Your task to perform on an android device: turn on sleep mode Image 0: 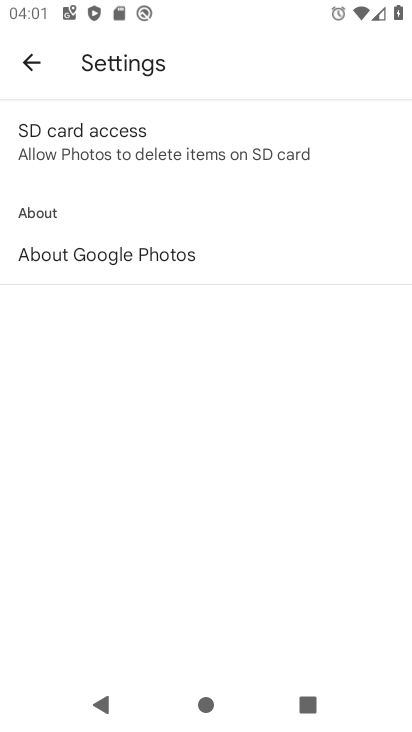
Step 0: press home button
Your task to perform on an android device: turn on sleep mode Image 1: 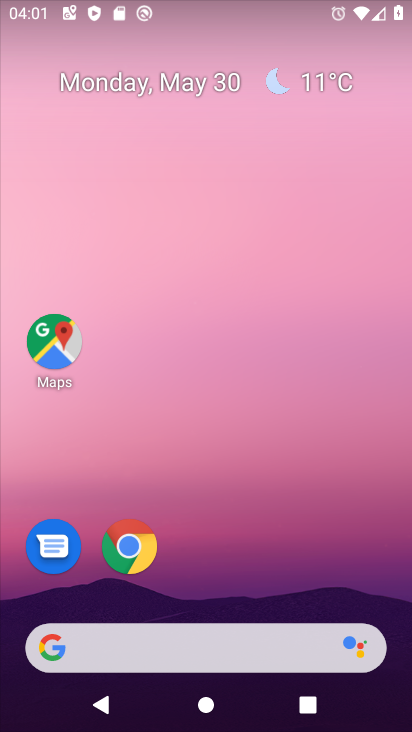
Step 1: drag from (228, 602) to (237, 147)
Your task to perform on an android device: turn on sleep mode Image 2: 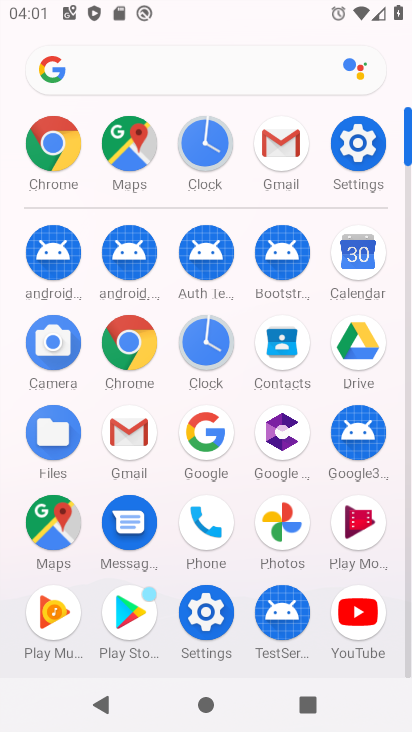
Step 2: click (203, 616)
Your task to perform on an android device: turn on sleep mode Image 3: 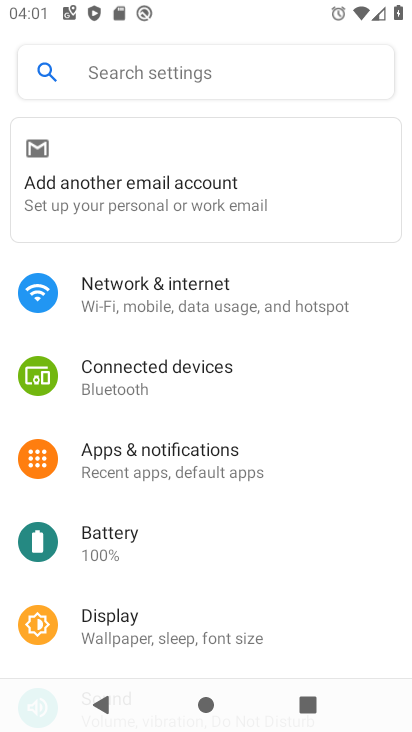
Step 3: click (143, 613)
Your task to perform on an android device: turn on sleep mode Image 4: 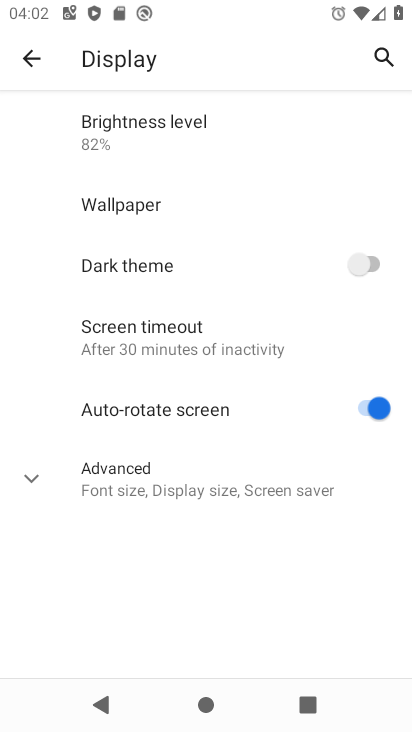
Step 4: click (32, 477)
Your task to perform on an android device: turn on sleep mode Image 5: 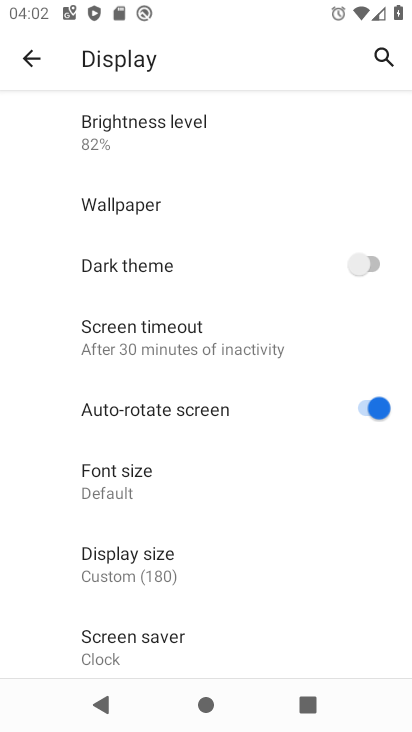
Step 5: task complete